Your task to perform on an android device: See recent photos Image 0: 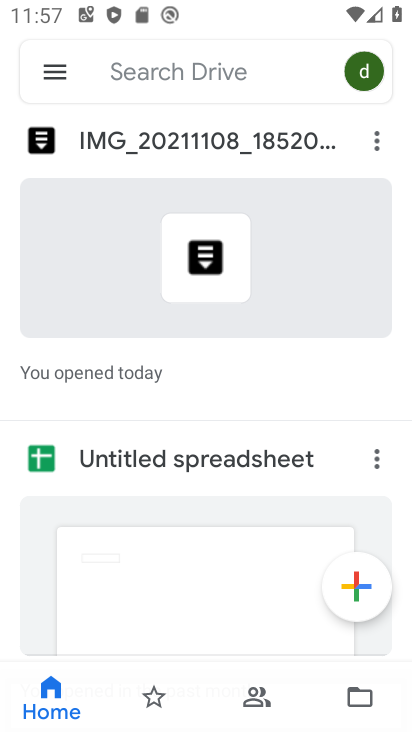
Step 0: press back button
Your task to perform on an android device: See recent photos Image 1: 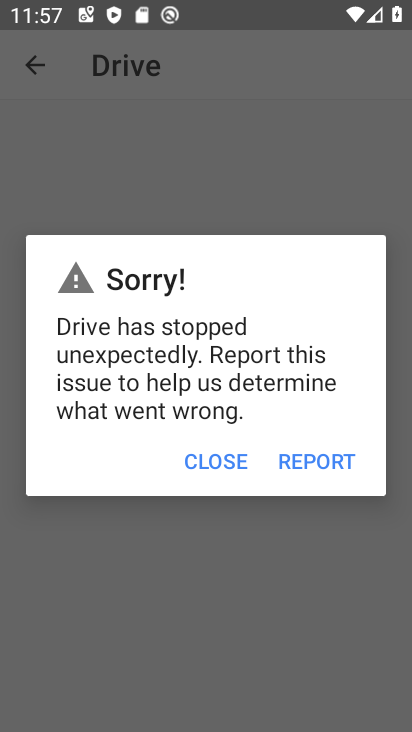
Step 1: press back button
Your task to perform on an android device: See recent photos Image 2: 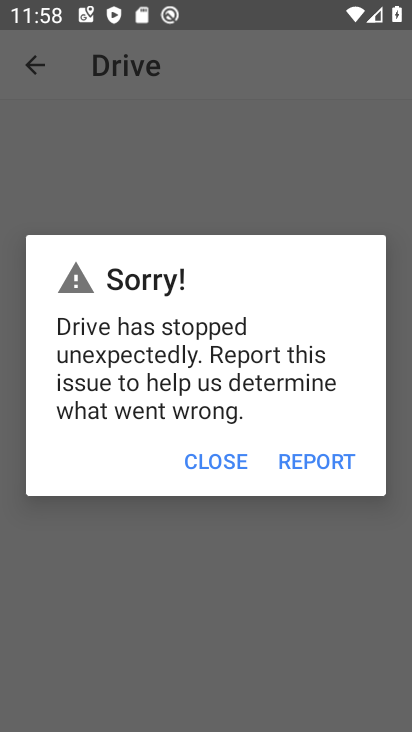
Step 2: click (180, 464)
Your task to perform on an android device: See recent photos Image 3: 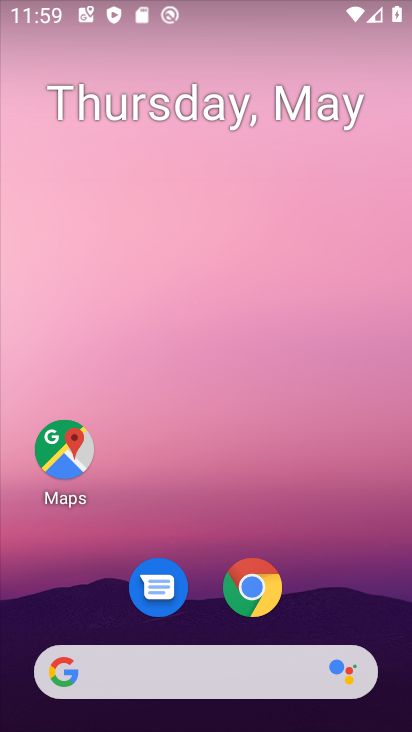
Step 3: drag from (201, 515) to (247, 109)
Your task to perform on an android device: See recent photos Image 4: 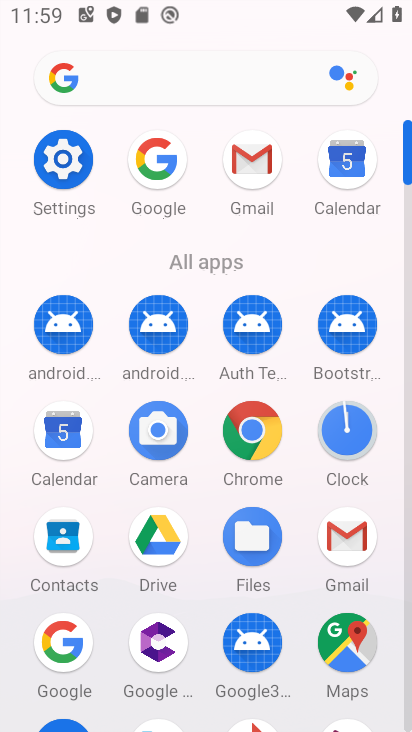
Step 4: drag from (201, 660) to (252, 69)
Your task to perform on an android device: See recent photos Image 5: 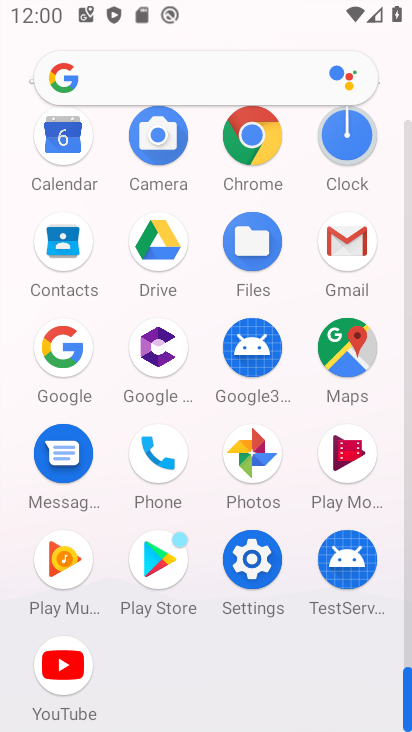
Step 5: click (259, 456)
Your task to perform on an android device: See recent photos Image 6: 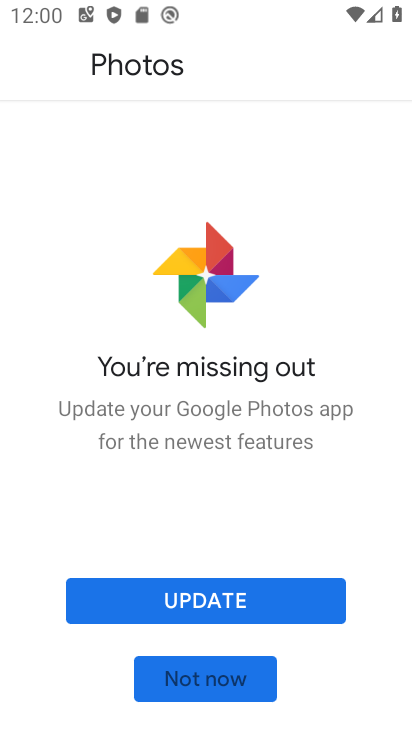
Step 6: click (188, 683)
Your task to perform on an android device: See recent photos Image 7: 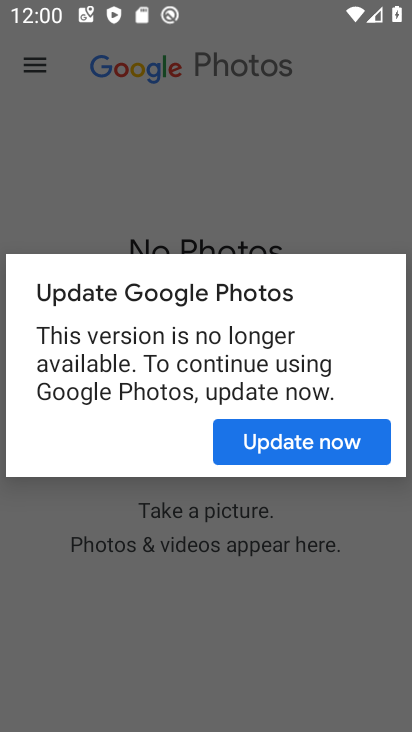
Step 7: click (299, 434)
Your task to perform on an android device: See recent photos Image 8: 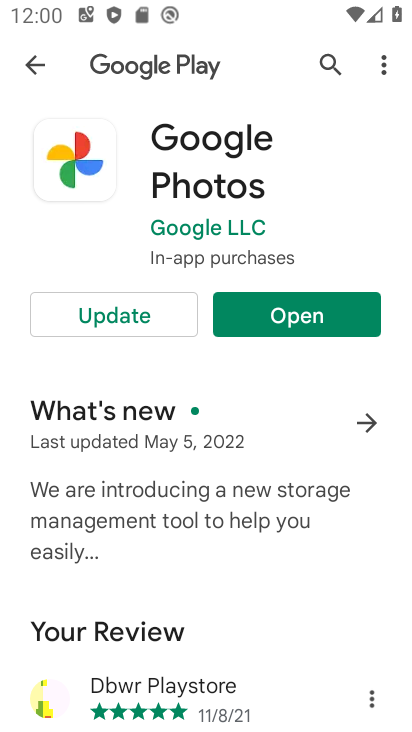
Step 8: click (308, 317)
Your task to perform on an android device: See recent photos Image 9: 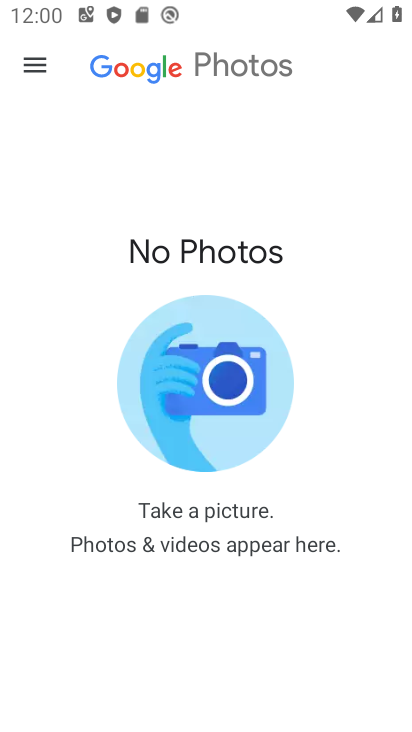
Step 9: click (44, 64)
Your task to perform on an android device: See recent photos Image 10: 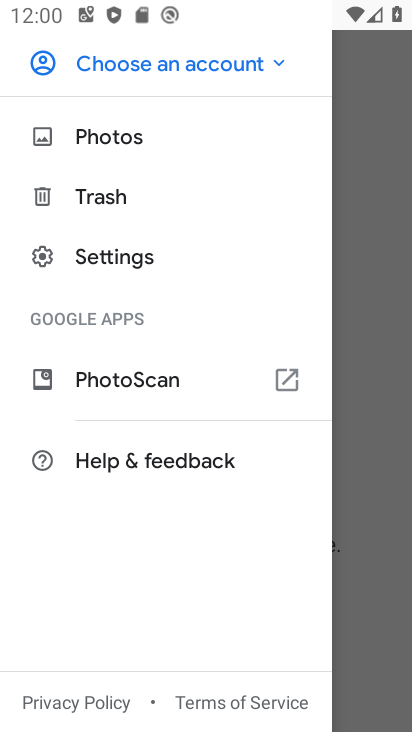
Step 10: click (144, 128)
Your task to perform on an android device: See recent photos Image 11: 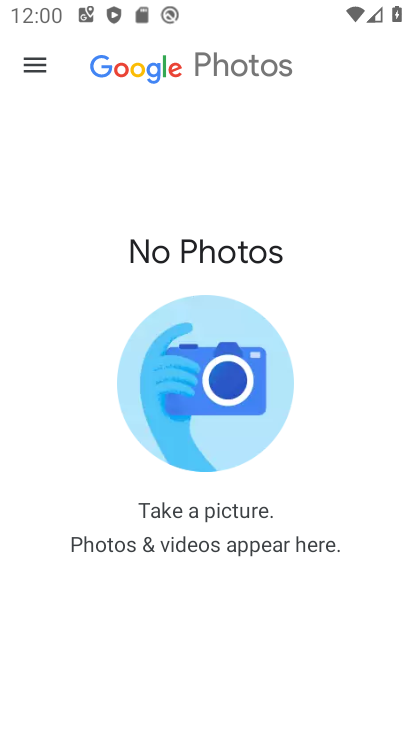
Step 11: task complete